Your task to perform on an android device: star an email in the gmail app Image 0: 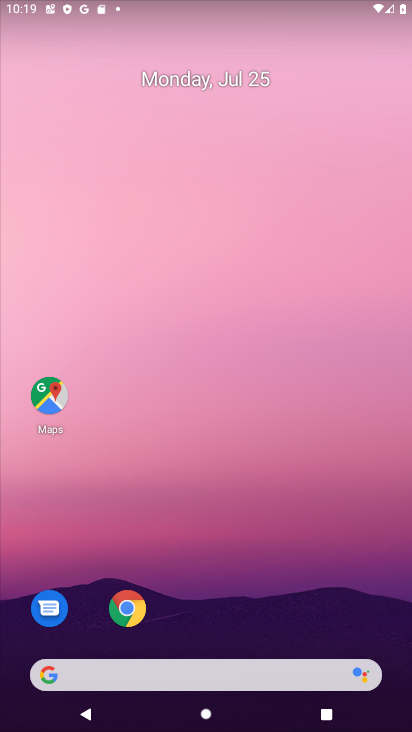
Step 0: drag from (231, 598) to (265, 67)
Your task to perform on an android device: star an email in the gmail app Image 1: 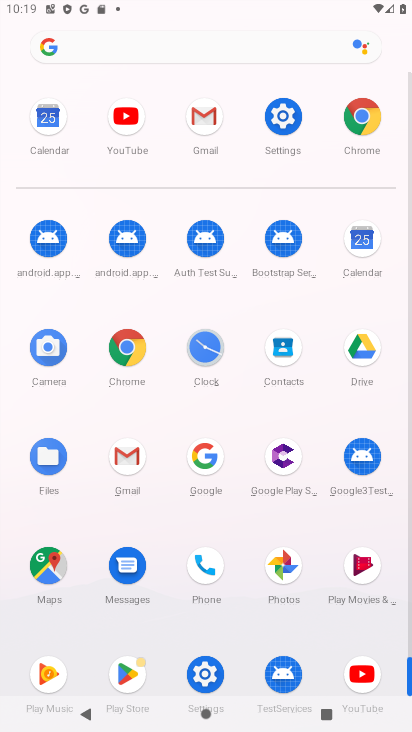
Step 1: click (118, 481)
Your task to perform on an android device: star an email in the gmail app Image 2: 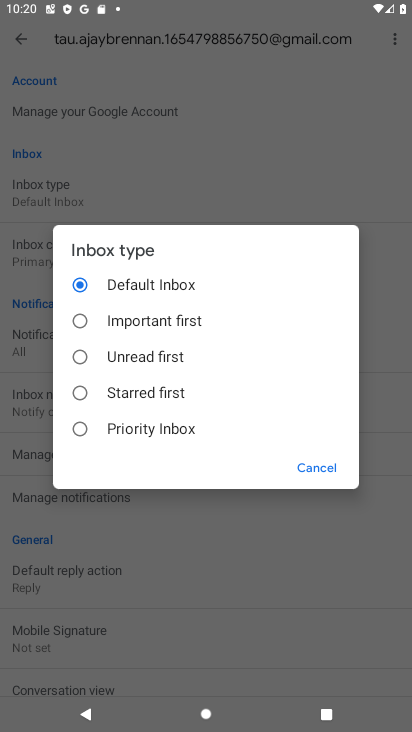
Step 2: click (306, 480)
Your task to perform on an android device: star an email in the gmail app Image 3: 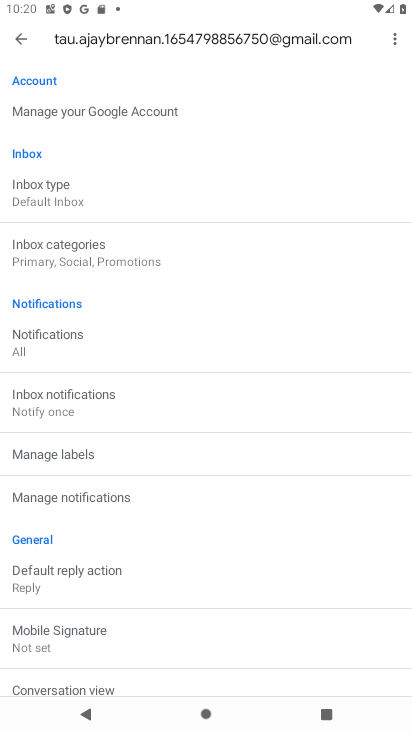
Step 3: click (22, 39)
Your task to perform on an android device: star an email in the gmail app Image 4: 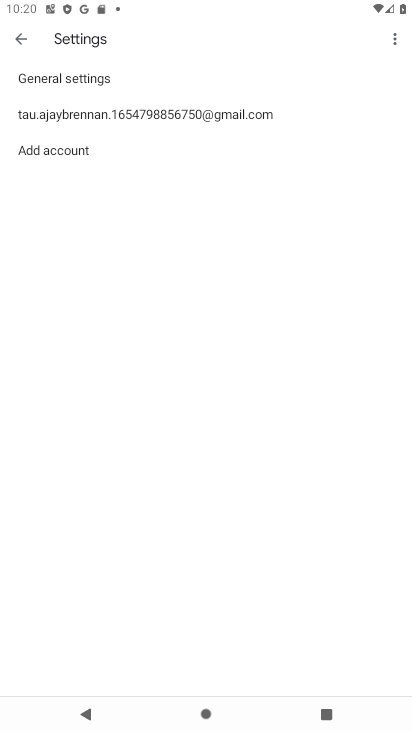
Step 4: click (21, 27)
Your task to perform on an android device: star an email in the gmail app Image 5: 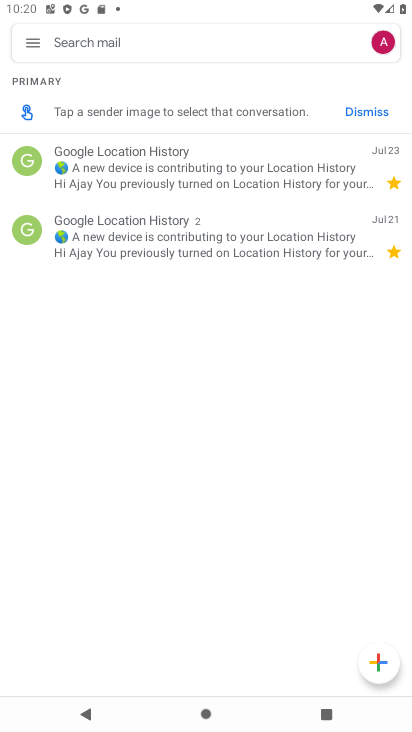
Step 5: click (107, 189)
Your task to perform on an android device: star an email in the gmail app Image 6: 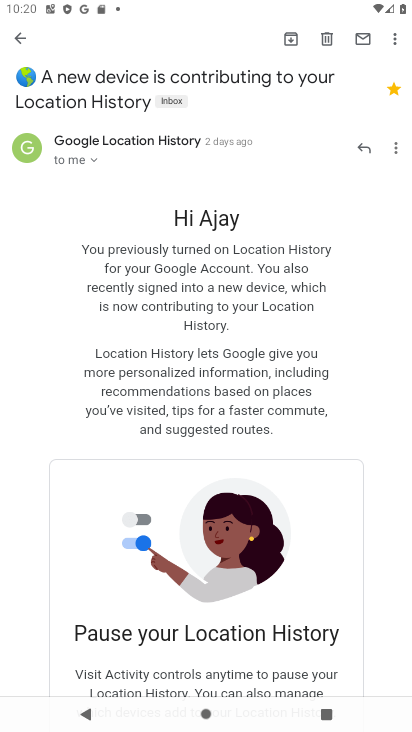
Step 6: click (20, 45)
Your task to perform on an android device: star an email in the gmail app Image 7: 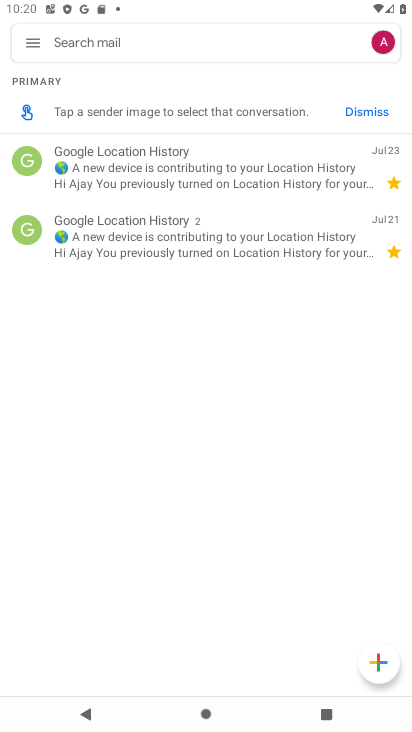
Step 7: task complete